Your task to perform on an android device: Go to network settings Image 0: 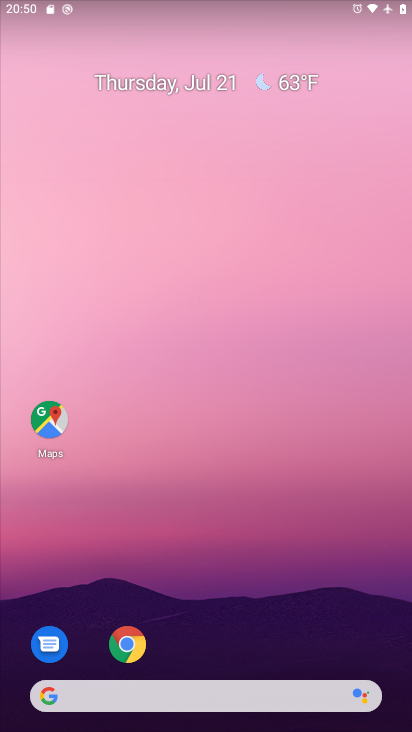
Step 0: drag from (201, 655) to (281, 87)
Your task to perform on an android device: Go to network settings Image 1: 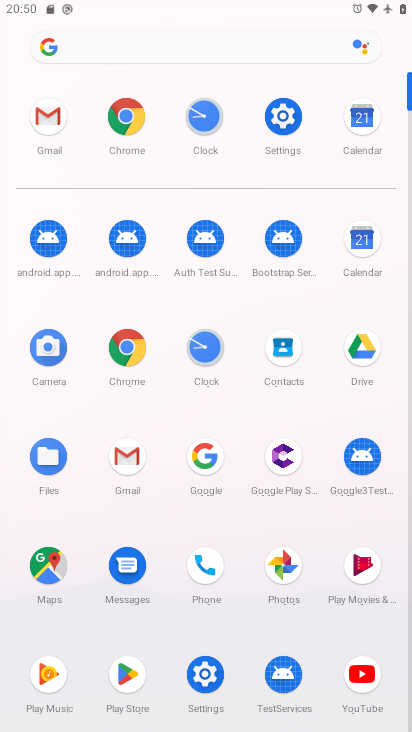
Step 1: click (289, 97)
Your task to perform on an android device: Go to network settings Image 2: 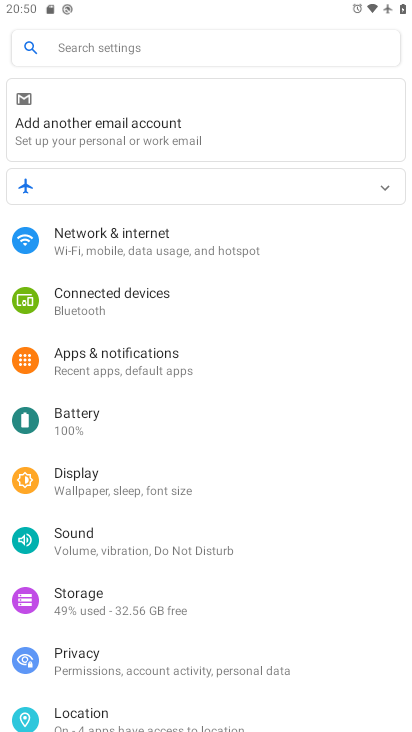
Step 2: click (136, 227)
Your task to perform on an android device: Go to network settings Image 3: 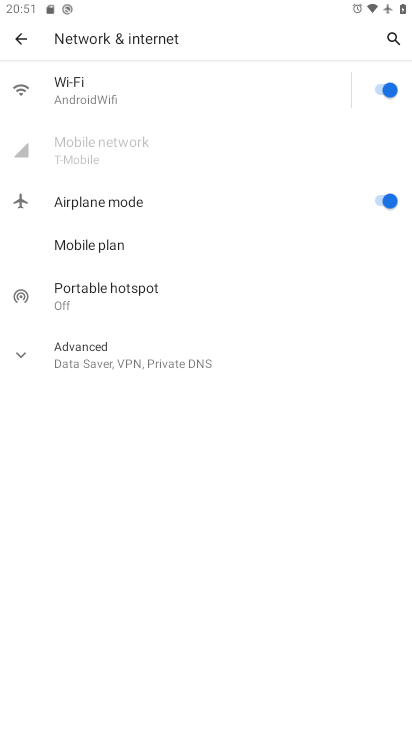
Step 3: task complete